Your task to perform on an android device: delete a single message in the gmail app Image 0: 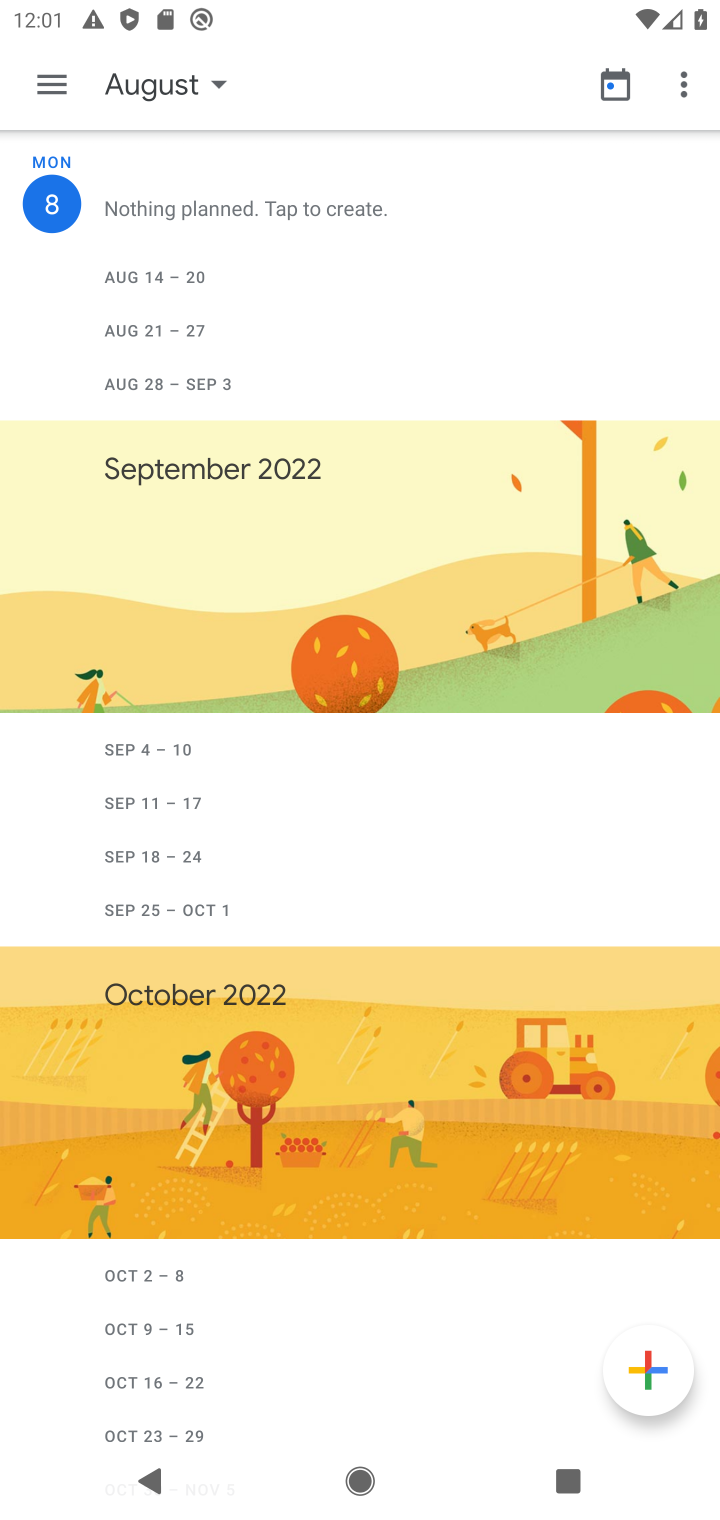
Step 0: press home button
Your task to perform on an android device: delete a single message in the gmail app Image 1: 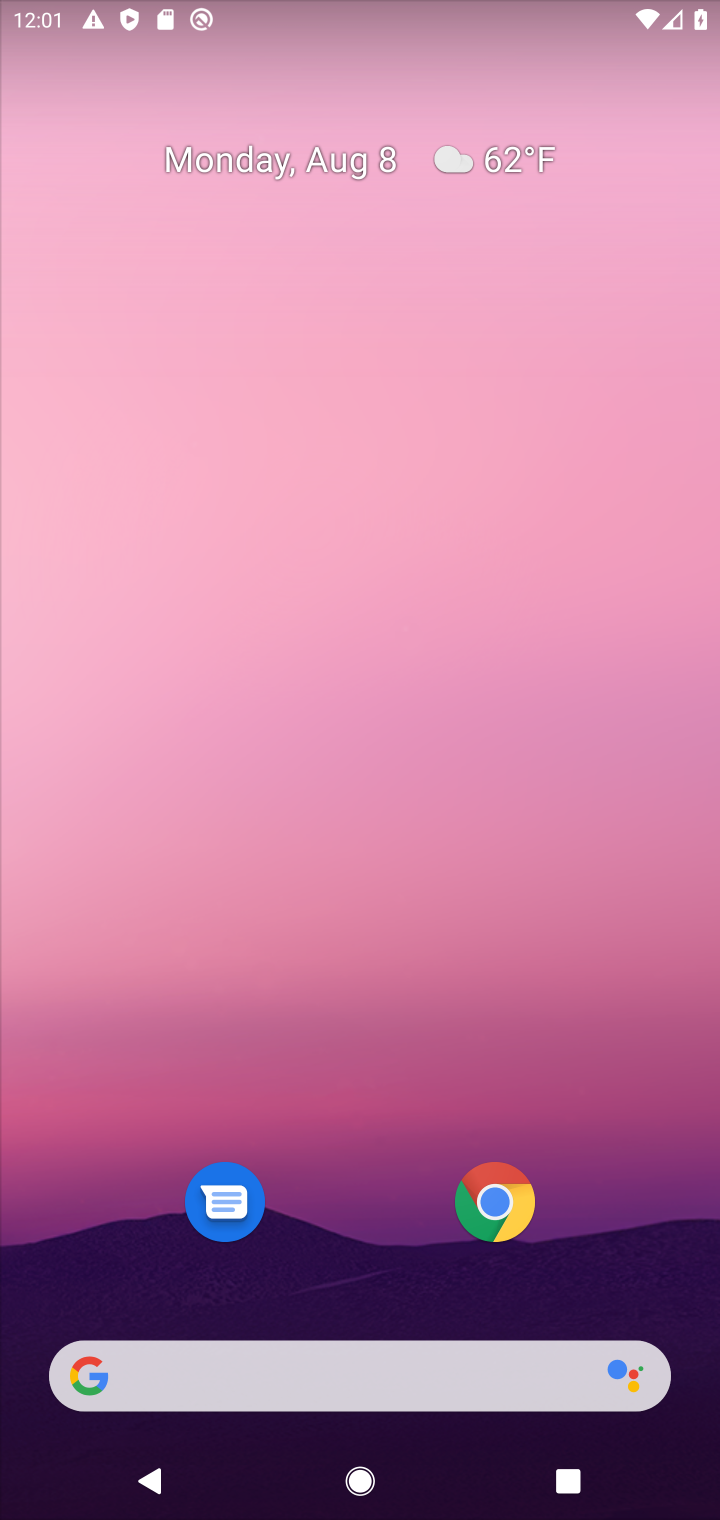
Step 1: click (372, 335)
Your task to perform on an android device: delete a single message in the gmail app Image 2: 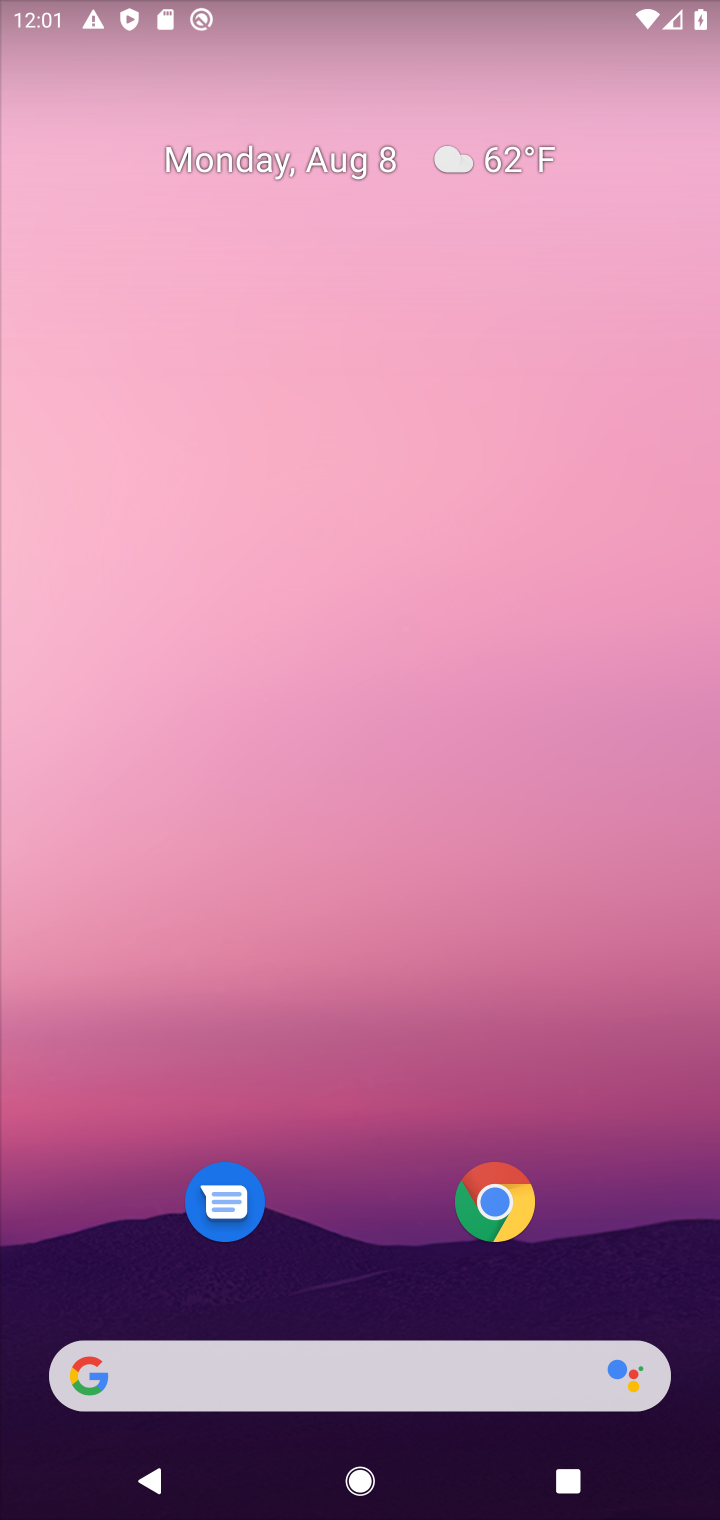
Step 2: click (374, 1356)
Your task to perform on an android device: delete a single message in the gmail app Image 3: 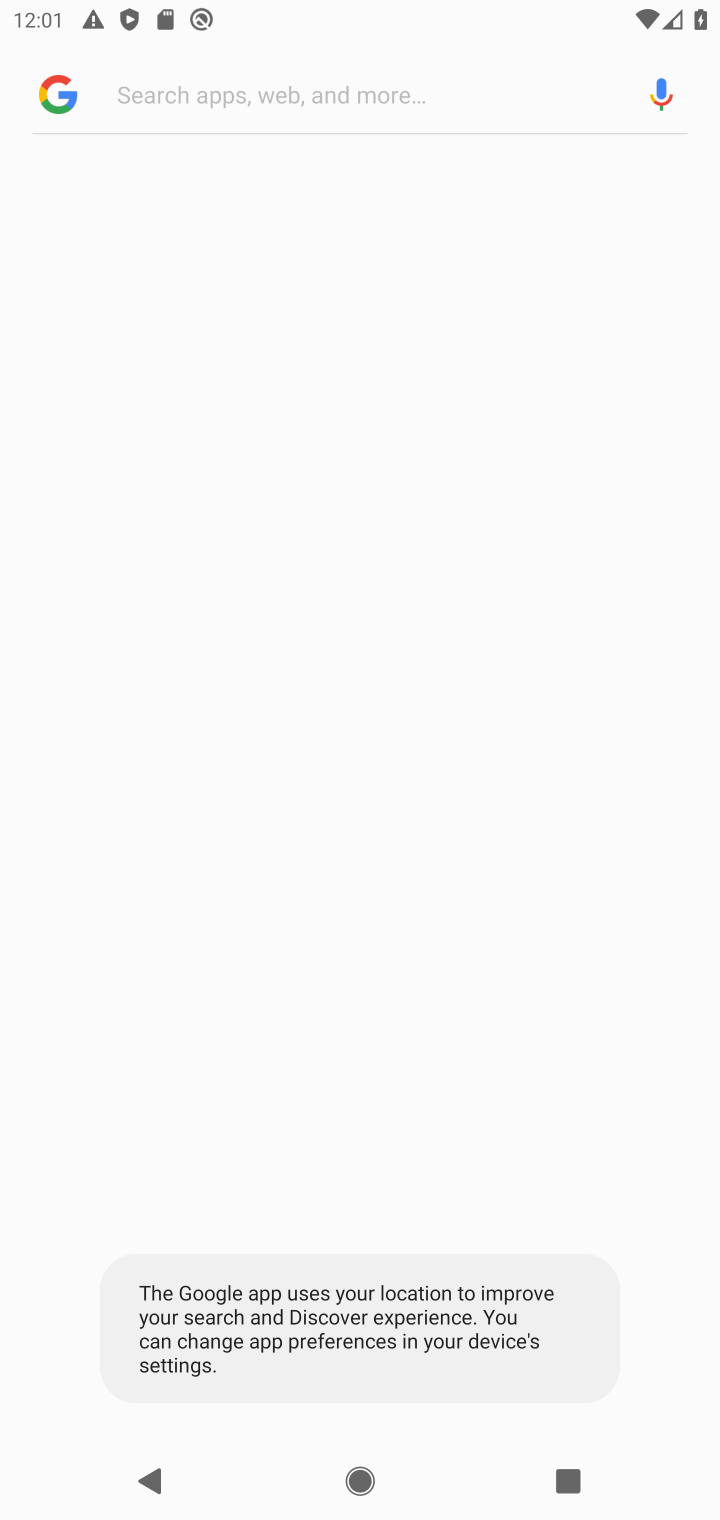
Step 3: drag from (351, 1208) to (656, 1014)
Your task to perform on an android device: delete a single message in the gmail app Image 4: 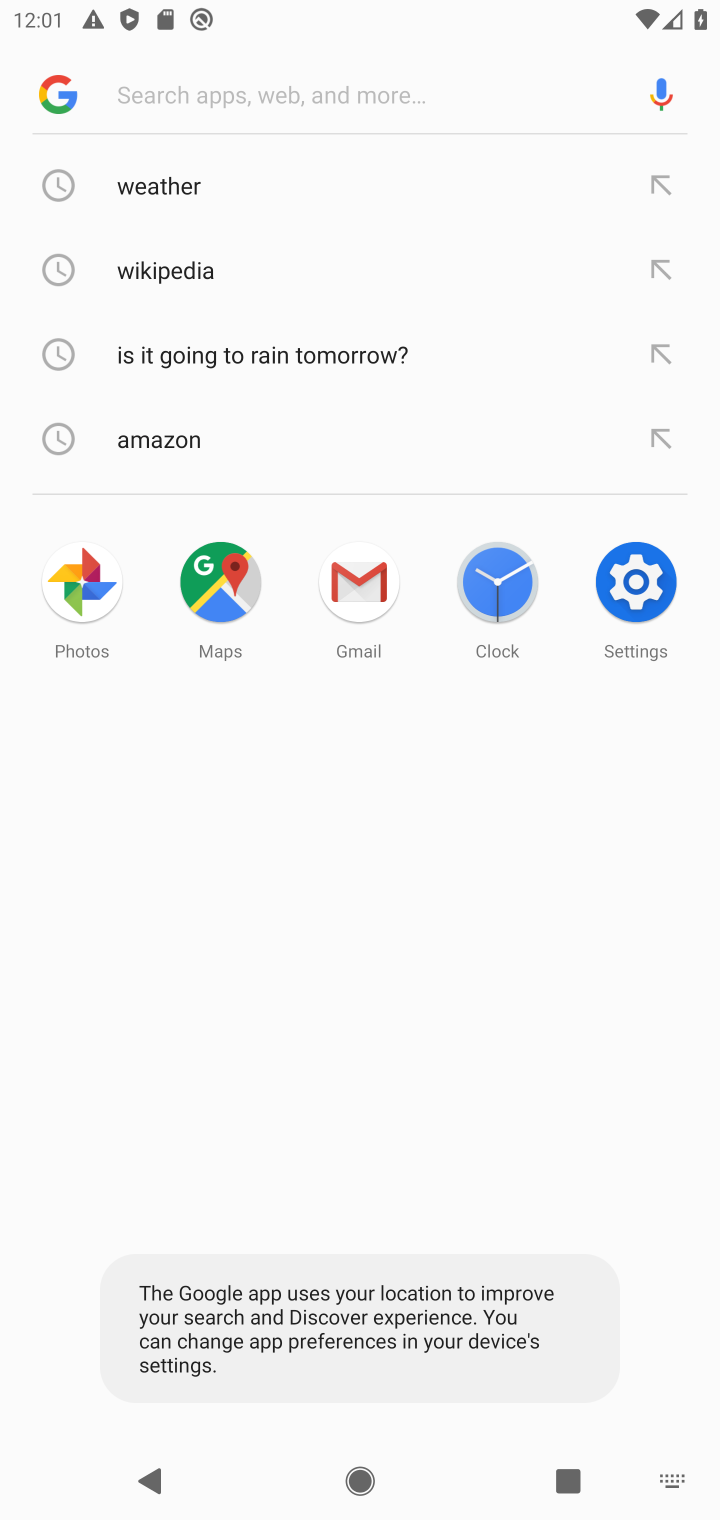
Step 4: press home button
Your task to perform on an android device: delete a single message in the gmail app Image 5: 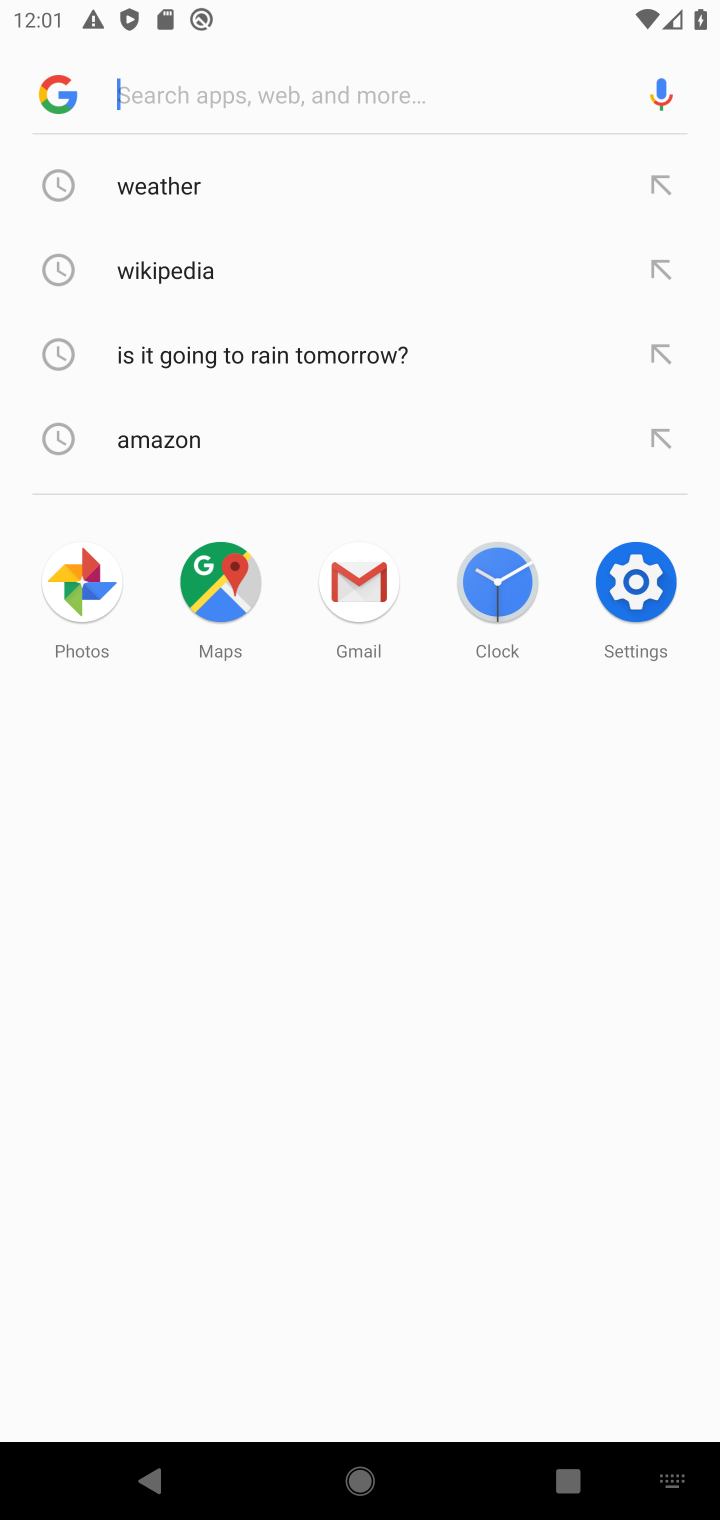
Step 5: click (656, 1014)
Your task to perform on an android device: delete a single message in the gmail app Image 6: 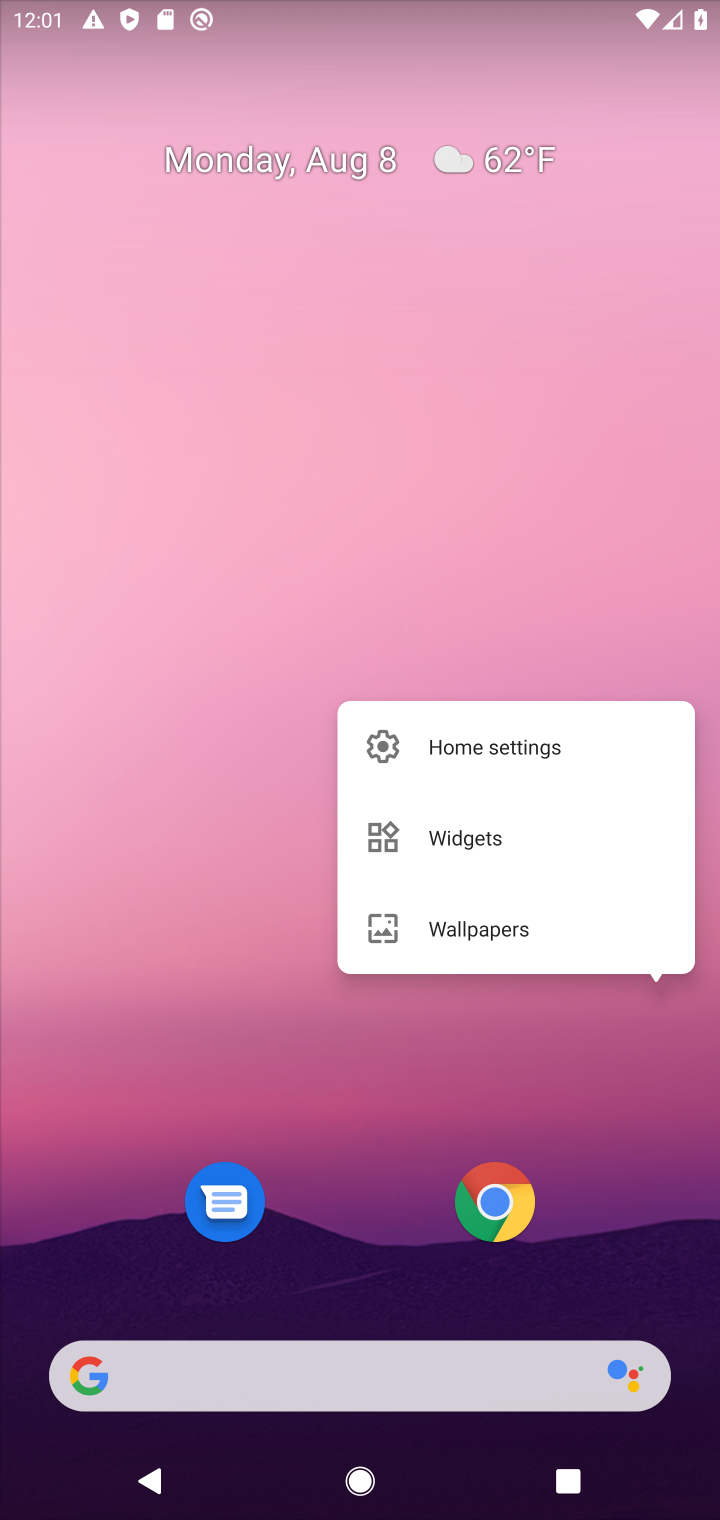
Step 6: drag from (431, 366) to (464, 43)
Your task to perform on an android device: delete a single message in the gmail app Image 7: 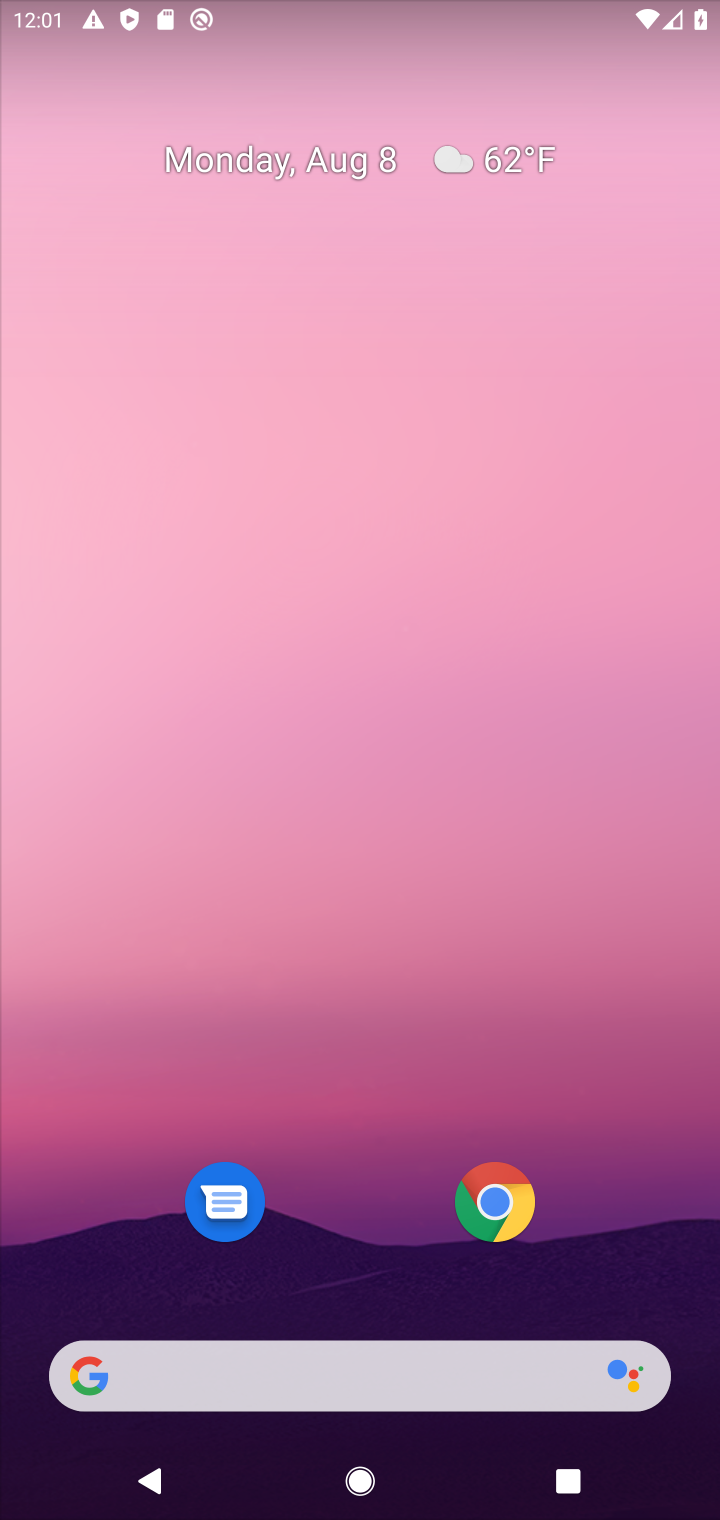
Step 7: drag from (326, 830) to (55, 379)
Your task to perform on an android device: delete a single message in the gmail app Image 8: 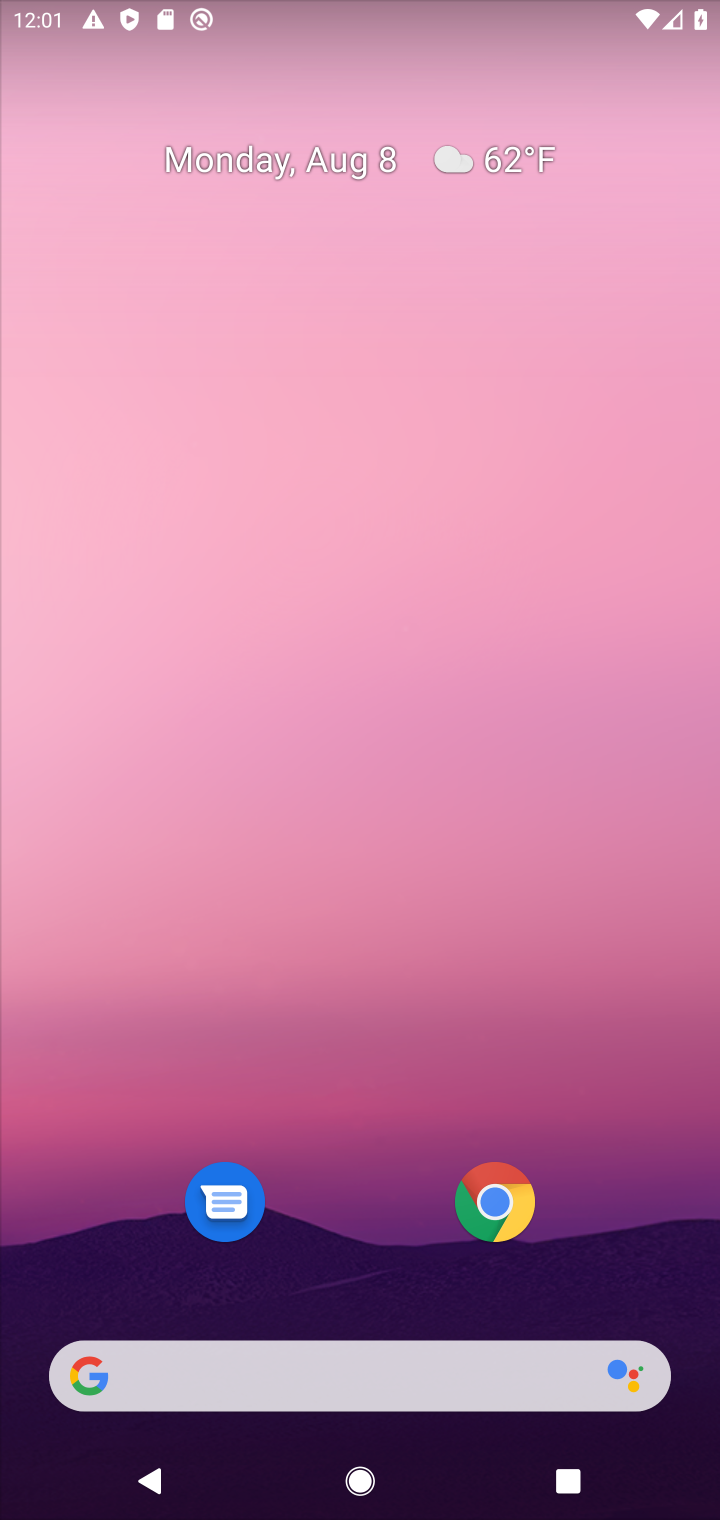
Step 8: drag from (350, 1043) to (253, 40)
Your task to perform on an android device: delete a single message in the gmail app Image 9: 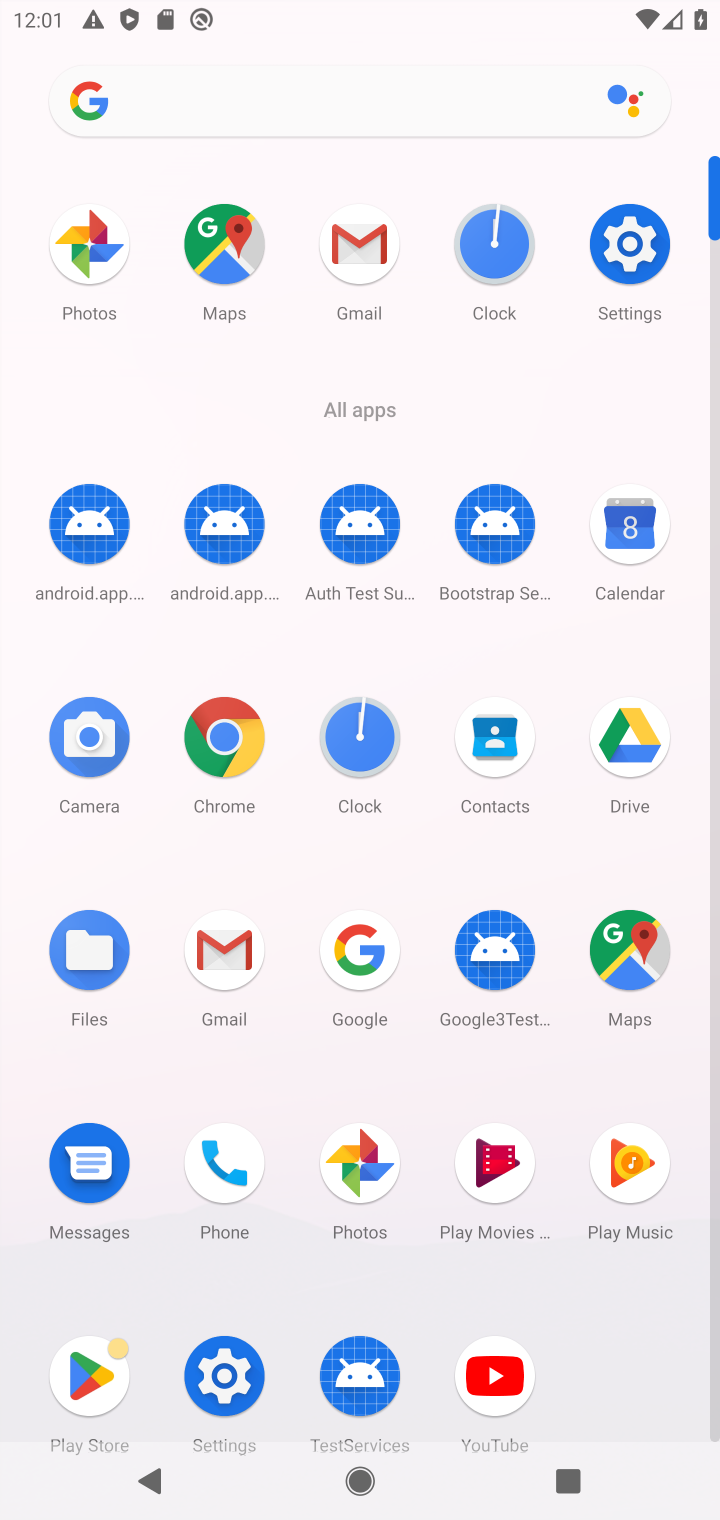
Step 9: click (352, 258)
Your task to perform on an android device: delete a single message in the gmail app Image 10: 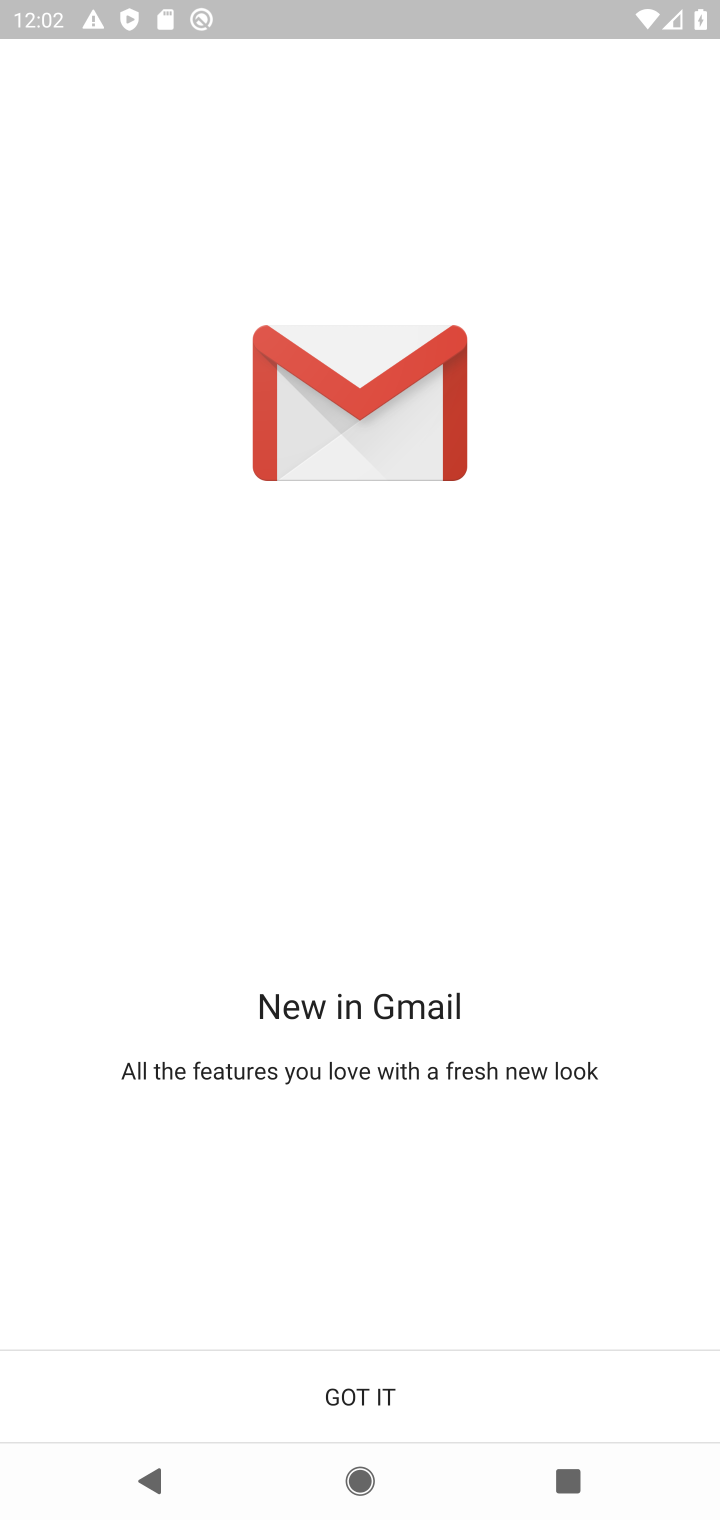
Step 10: click (353, 1360)
Your task to perform on an android device: delete a single message in the gmail app Image 11: 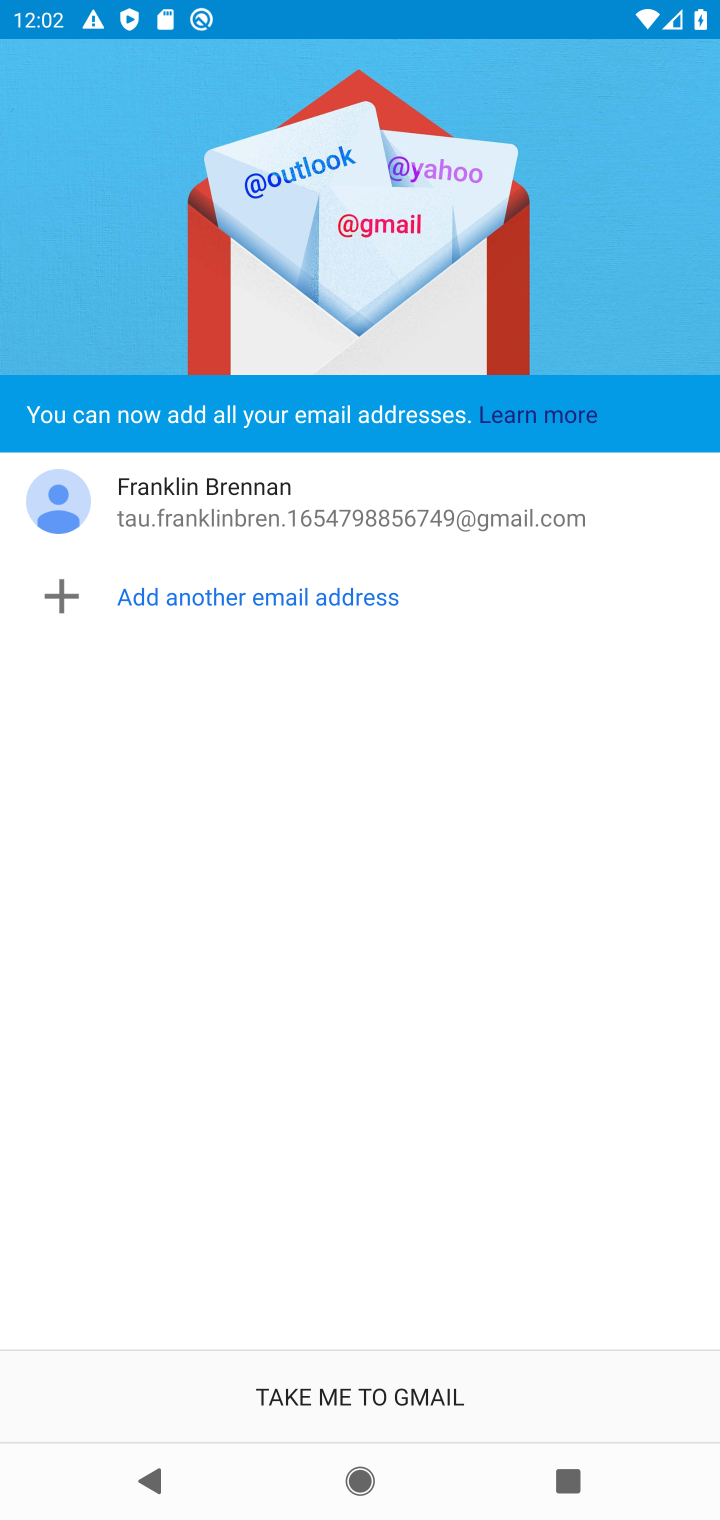
Step 11: click (353, 1360)
Your task to perform on an android device: delete a single message in the gmail app Image 12: 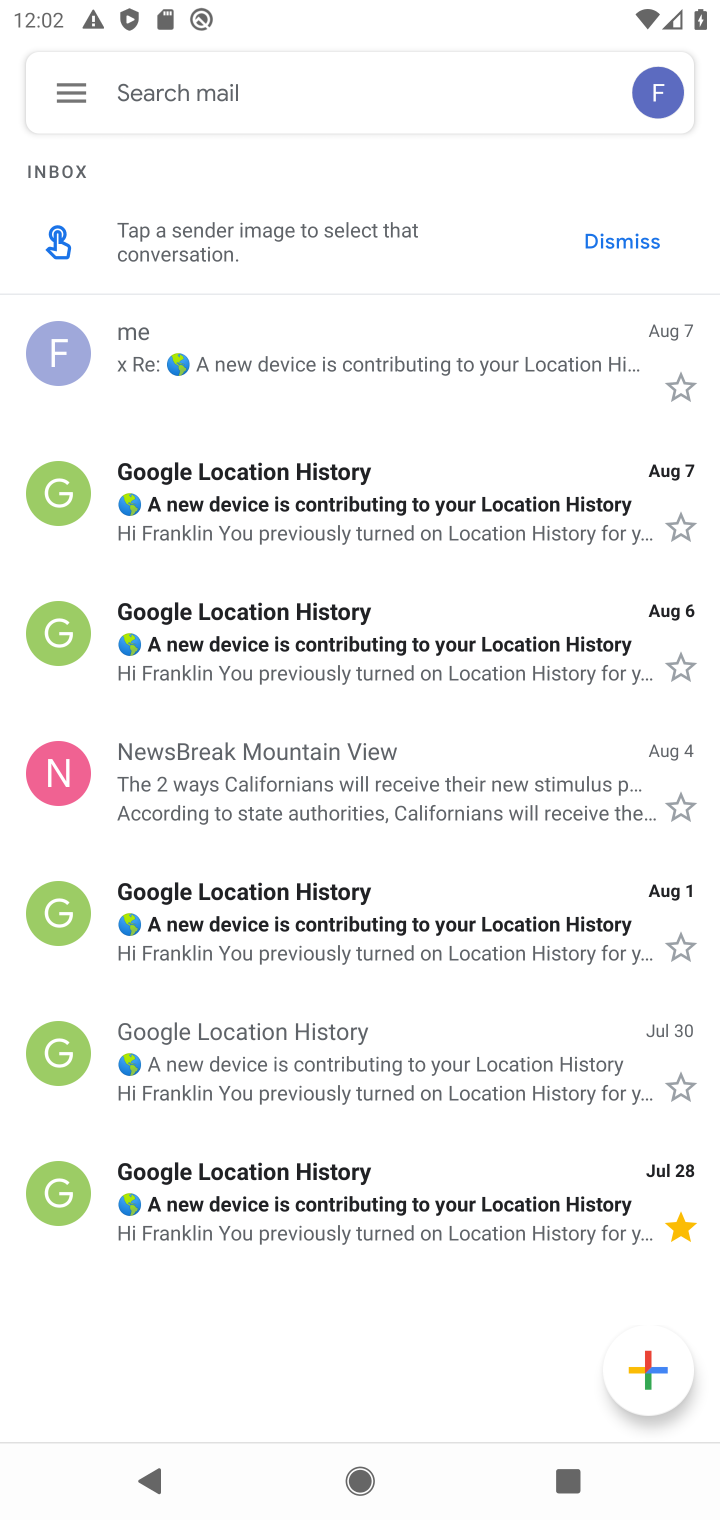
Step 12: click (393, 381)
Your task to perform on an android device: delete a single message in the gmail app Image 13: 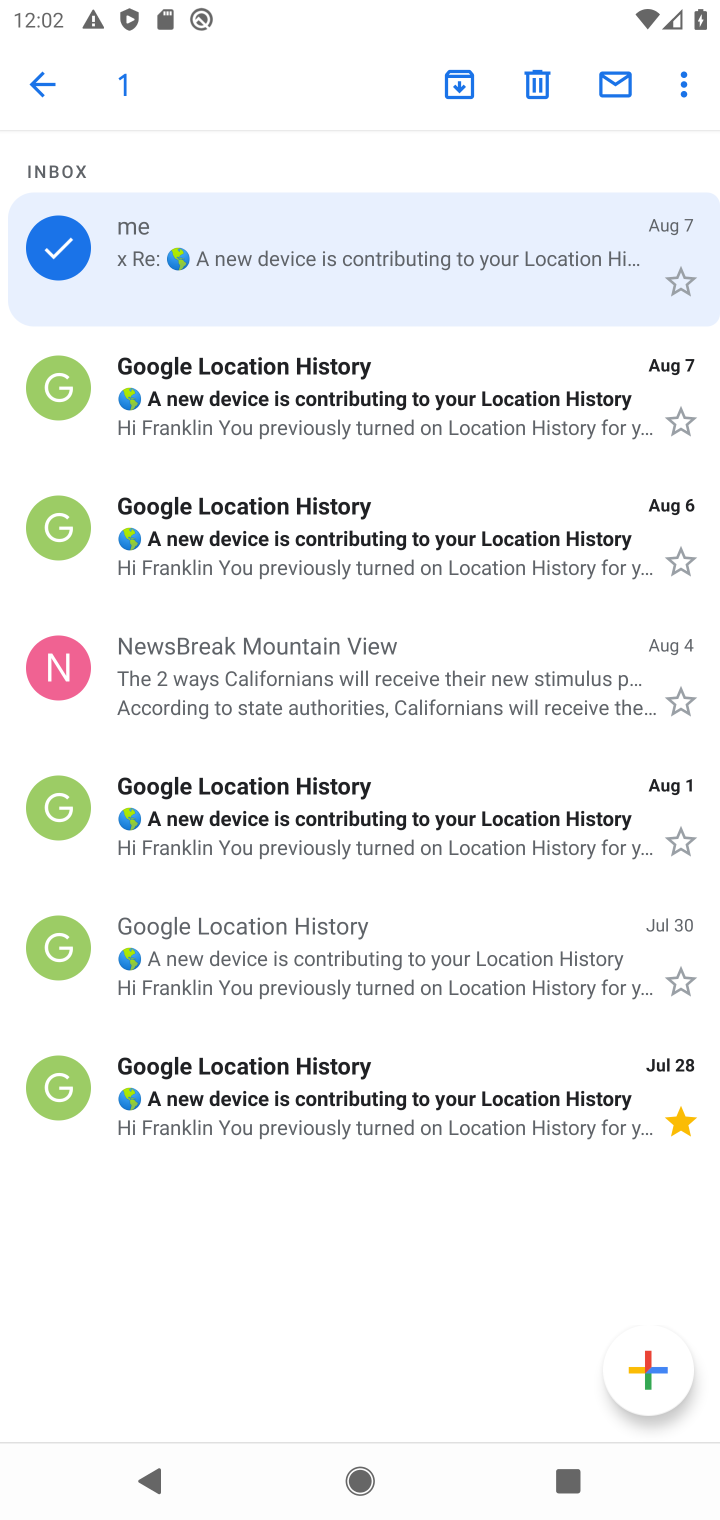
Step 13: drag from (393, 353) to (453, 264)
Your task to perform on an android device: delete a single message in the gmail app Image 14: 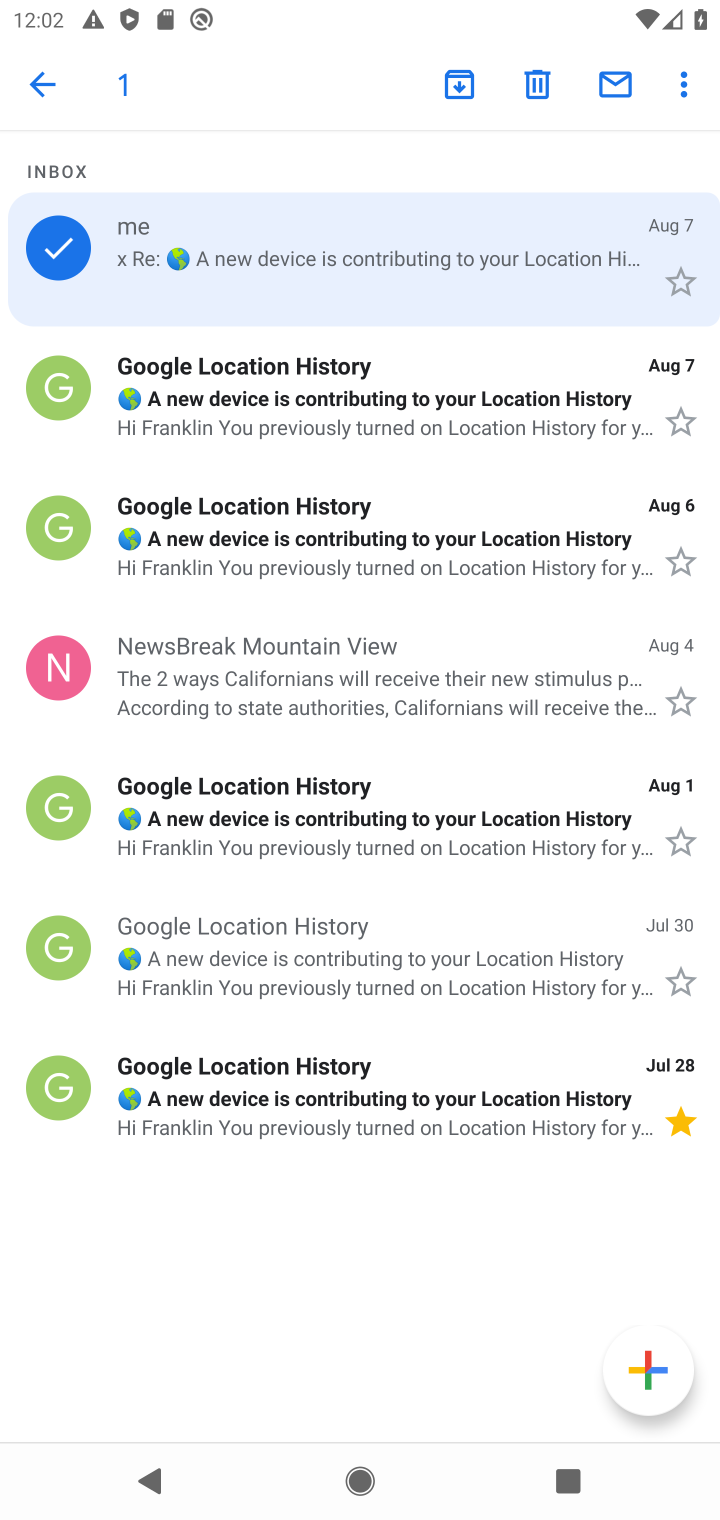
Step 14: click (549, 76)
Your task to perform on an android device: delete a single message in the gmail app Image 15: 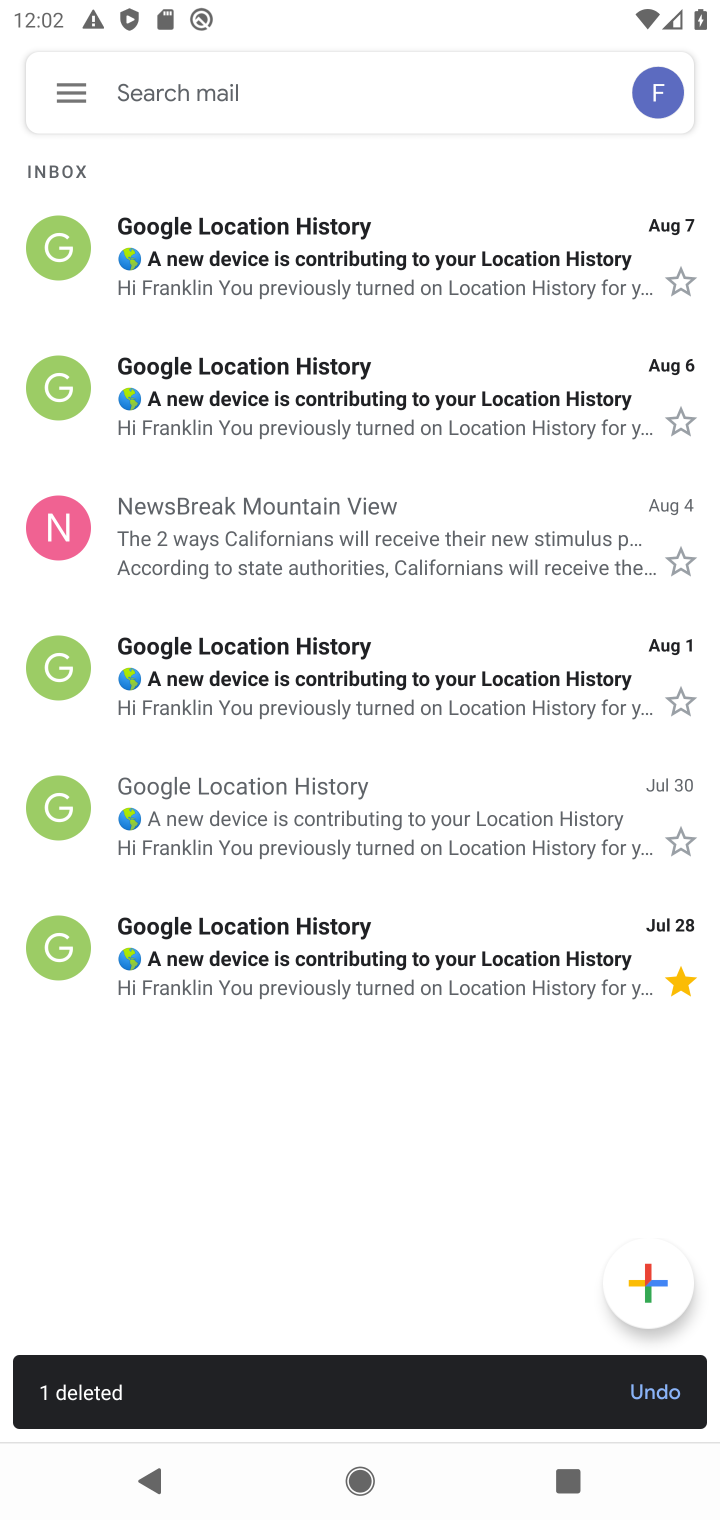
Step 15: task complete